Your task to perform on an android device: open the mobile data screen to see how much data has been used Image 0: 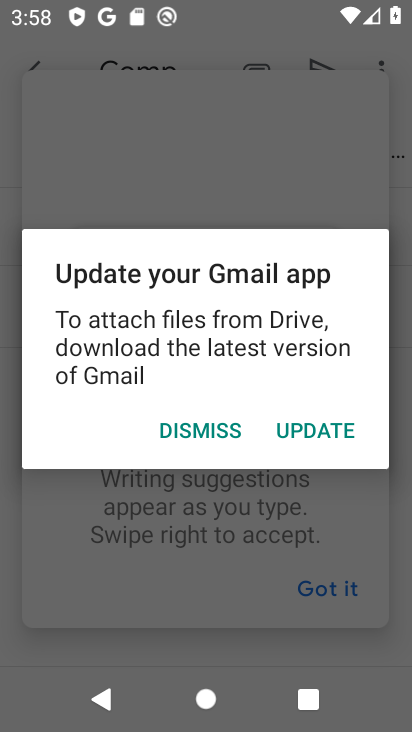
Step 0: press home button
Your task to perform on an android device: open the mobile data screen to see how much data has been used Image 1: 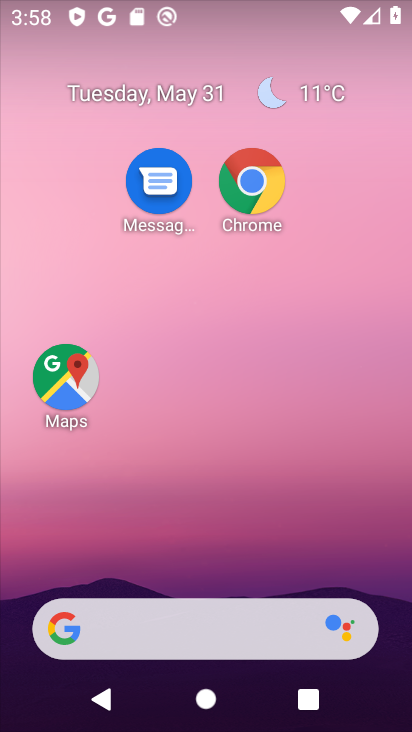
Step 1: drag from (234, 578) to (246, 76)
Your task to perform on an android device: open the mobile data screen to see how much data has been used Image 2: 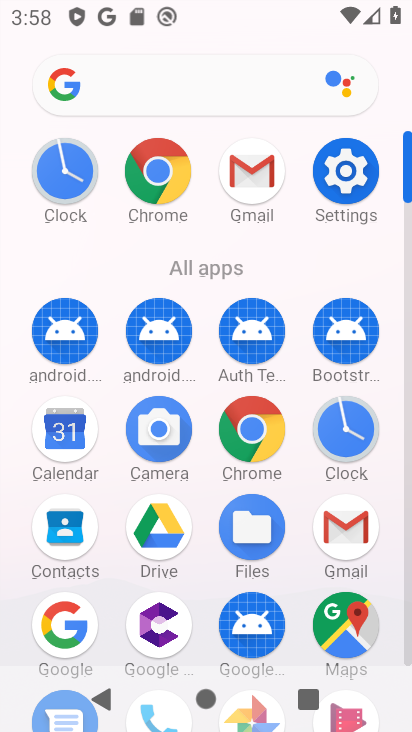
Step 2: click (344, 170)
Your task to perform on an android device: open the mobile data screen to see how much data has been used Image 3: 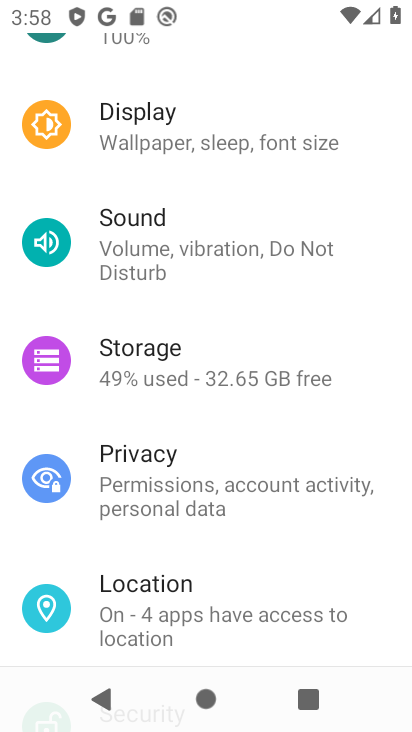
Step 3: drag from (233, 136) to (307, 527)
Your task to perform on an android device: open the mobile data screen to see how much data has been used Image 4: 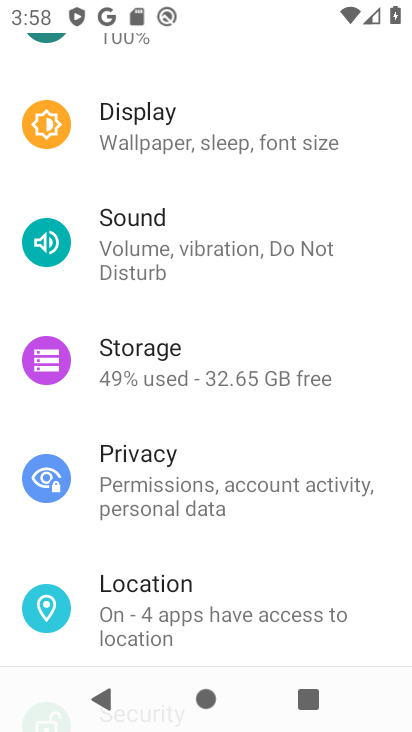
Step 4: drag from (194, 119) to (262, 534)
Your task to perform on an android device: open the mobile data screen to see how much data has been used Image 5: 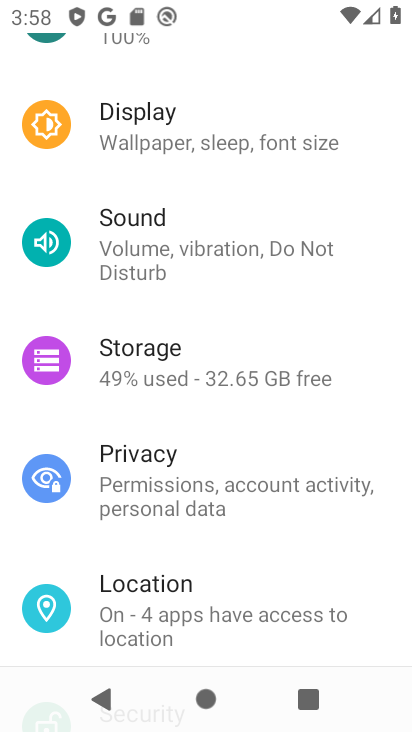
Step 5: drag from (301, 236) to (327, 705)
Your task to perform on an android device: open the mobile data screen to see how much data has been used Image 6: 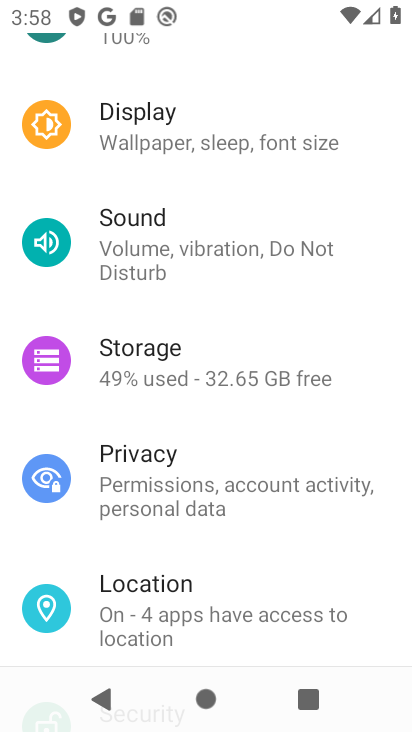
Step 6: drag from (280, 127) to (330, 437)
Your task to perform on an android device: open the mobile data screen to see how much data has been used Image 7: 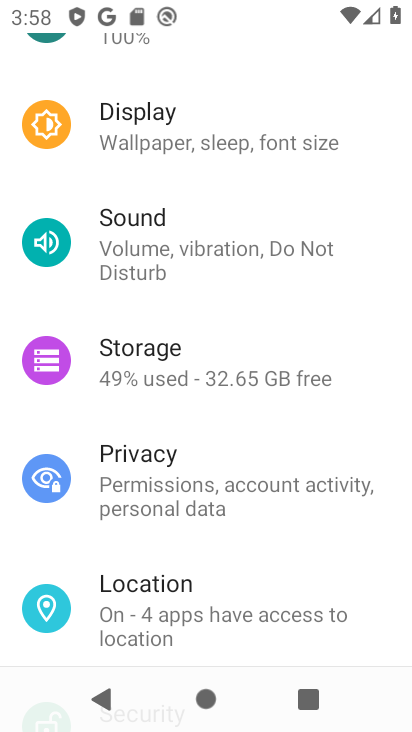
Step 7: drag from (289, 307) to (330, 513)
Your task to perform on an android device: open the mobile data screen to see how much data has been used Image 8: 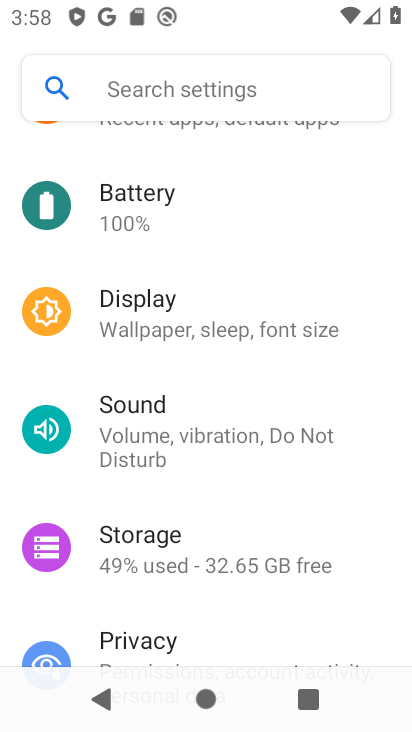
Step 8: drag from (254, 264) to (270, 505)
Your task to perform on an android device: open the mobile data screen to see how much data has been used Image 9: 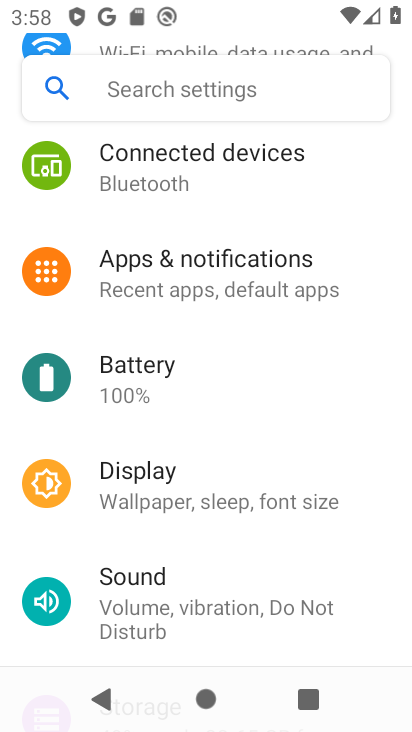
Step 9: drag from (208, 330) to (293, 515)
Your task to perform on an android device: open the mobile data screen to see how much data has been used Image 10: 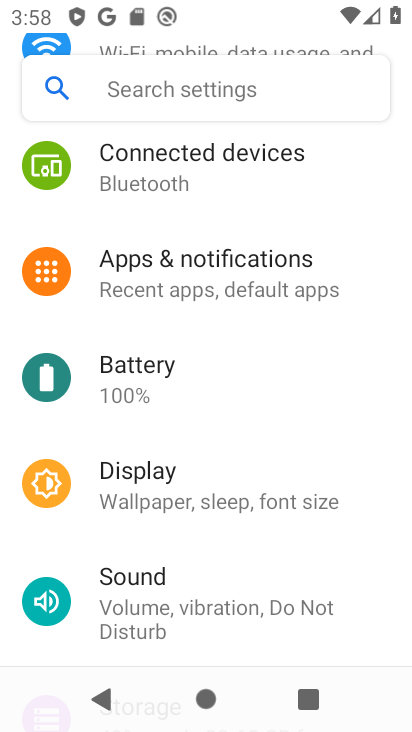
Step 10: drag from (270, 235) to (315, 496)
Your task to perform on an android device: open the mobile data screen to see how much data has been used Image 11: 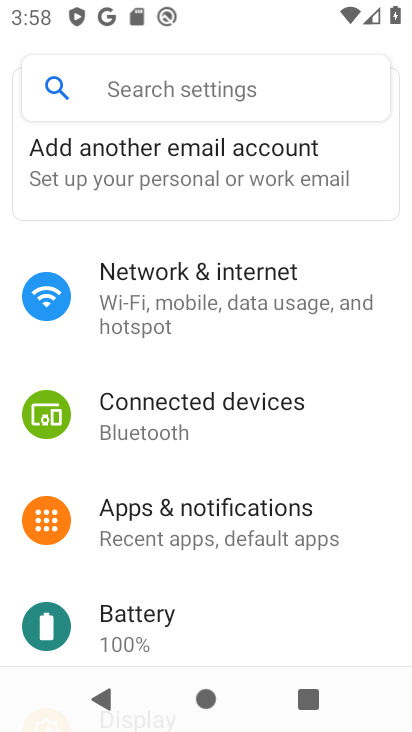
Step 11: click (143, 228)
Your task to perform on an android device: open the mobile data screen to see how much data has been used Image 12: 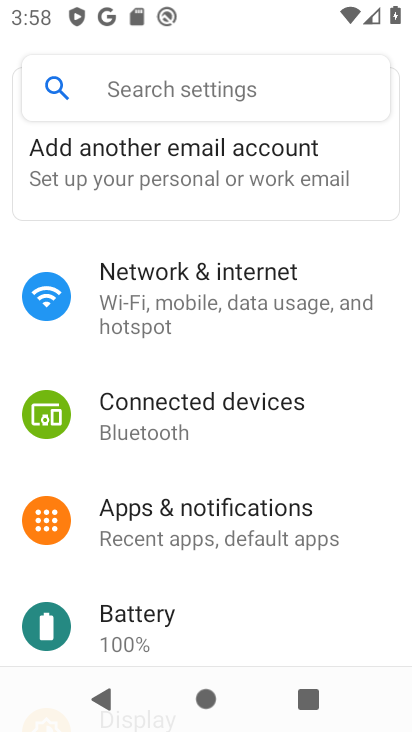
Step 12: click (206, 295)
Your task to perform on an android device: open the mobile data screen to see how much data has been used Image 13: 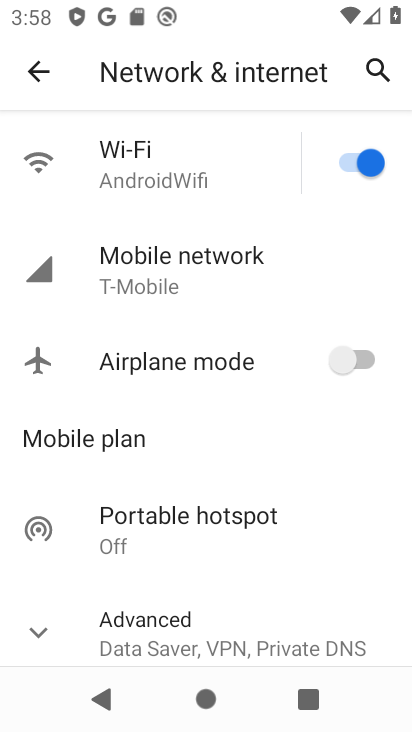
Step 13: click (194, 274)
Your task to perform on an android device: open the mobile data screen to see how much data has been used Image 14: 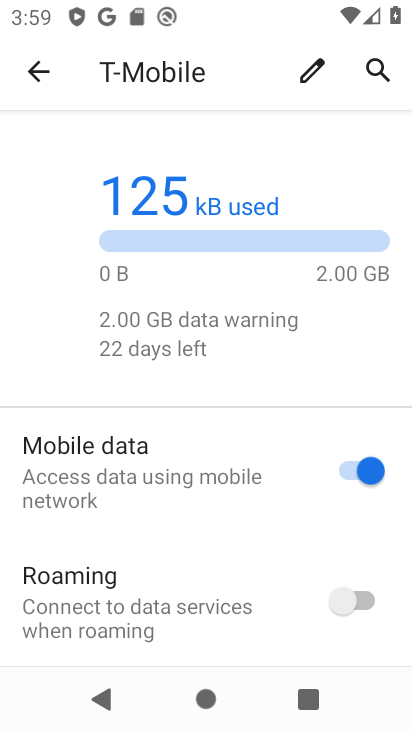
Step 14: task complete